Your task to perform on an android device: turn pop-ups on in chrome Image 0: 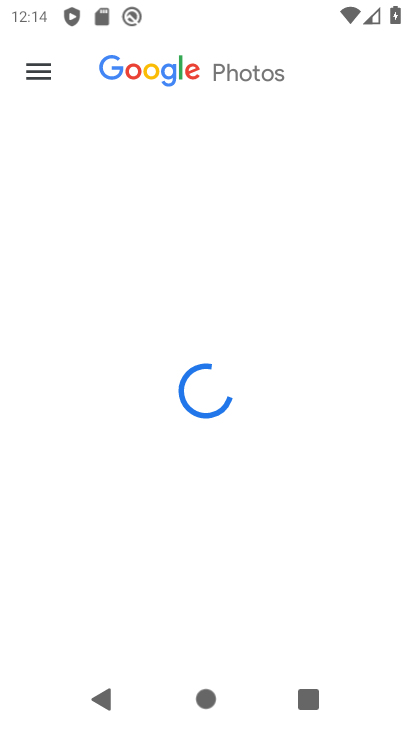
Step 0: press home button
Your task to perform on an android device: turn pop-ups on in chrome Image 1: 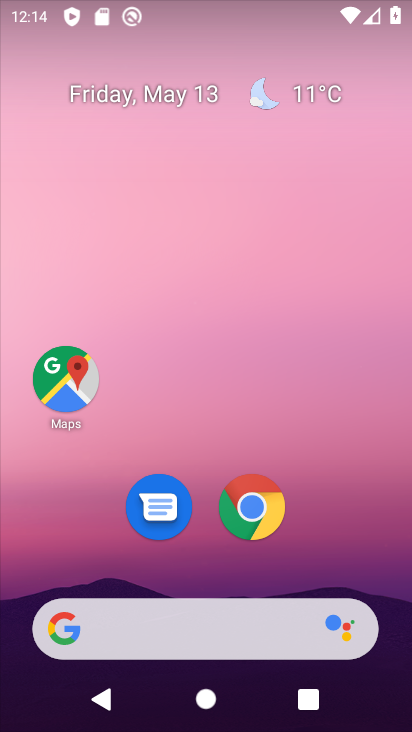
Step 1: drag from (204, 587) to (204, 94)
Your task to perform on an android device: turn pop-ups on in chrome Image 2: 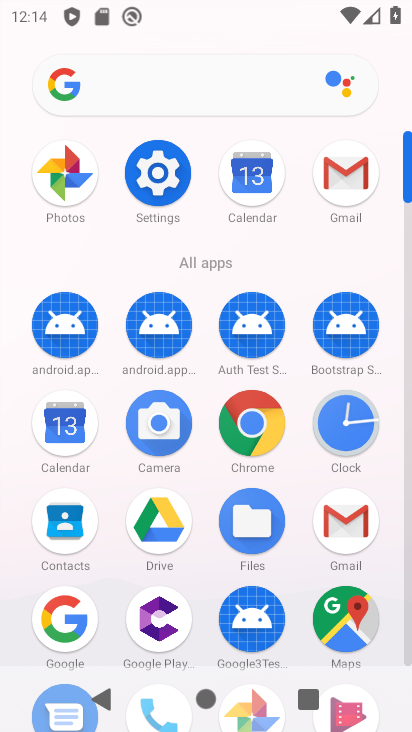
Step 2: click (260, 442)
Your task to perform on an android device: turn pop-ups on in chrome Image 3: 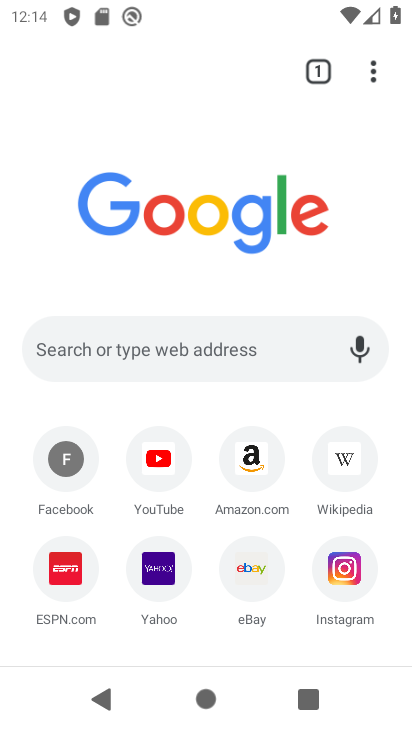
Step 3: click (370, 61)
Your task to perform on an android device: turn pop-ups on in chrome Image 4: 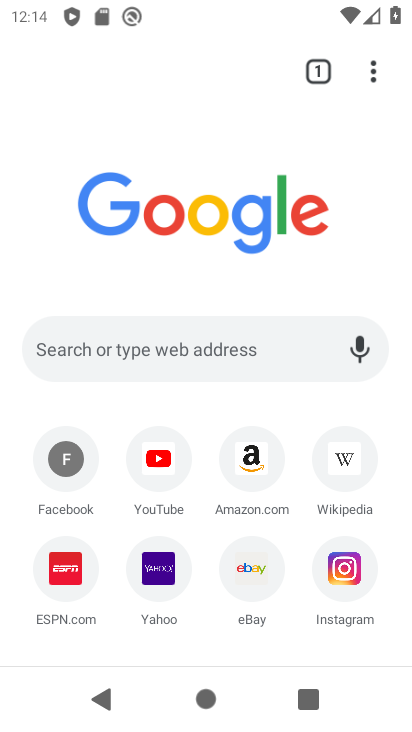
Step 4: click (384, 68)
Your task to perform on an android device: turn pop-ups on in chrome Image 5: 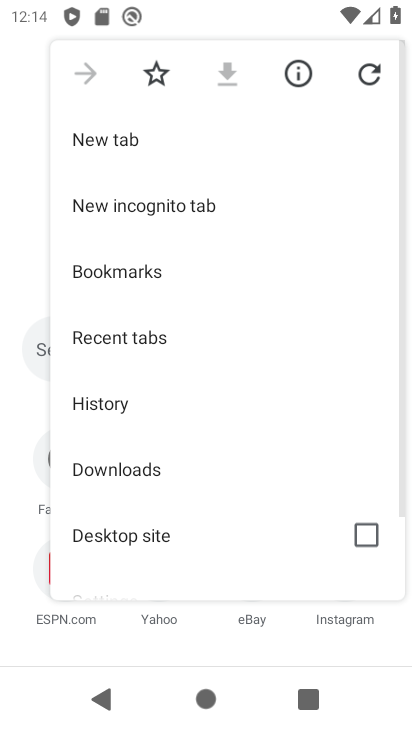
Step 5: drag from (176, 478) to (155, 69)
Your task to perform on an android device: turn pop-ups on in chrome Image 6: 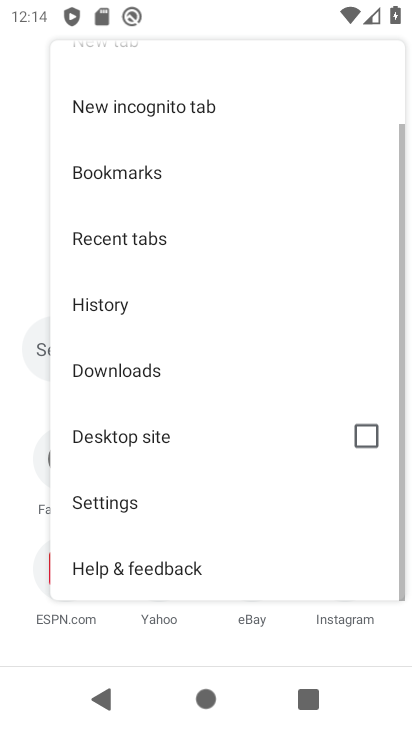
Step 6: click (118, 493)
Your task to perform on an android device: turn pop-ups on in chrome Image 7: 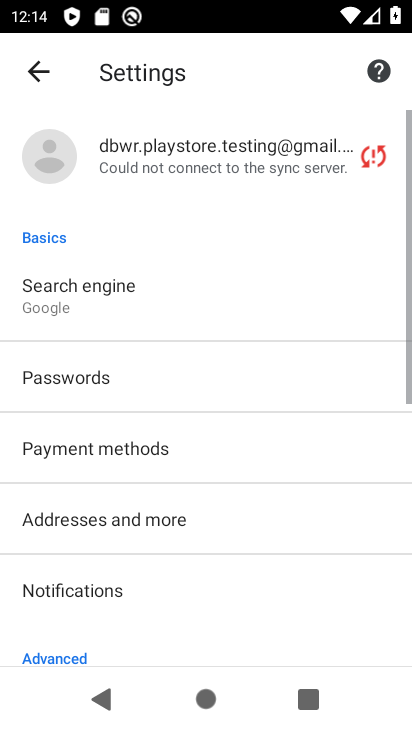
Step 7: drag from (123, 511) to (110, 150)
Your task to perform on an android device: turn pop-ups on in chrome Image 8: 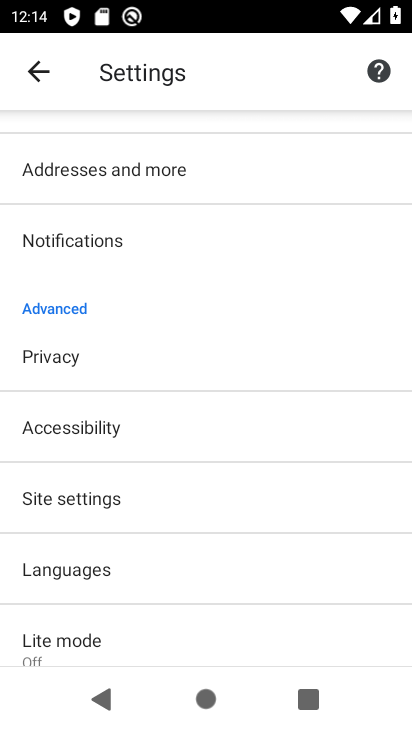
Step 8: click (103, 487)
Your task to perform on an android device: turn pop-ups on in chrome Image 9: 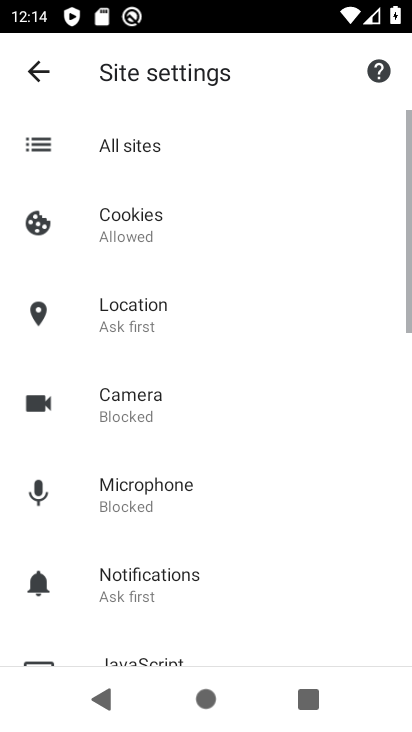
Step 9: drag from (229, 563) to (224, 98)
Your task to perform on an android device: turn pop-ups on in chrome Image 10: 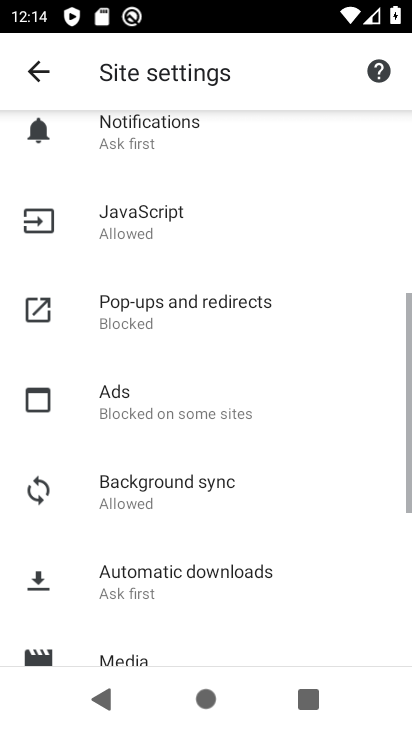
Step 10: click (168, 325)
Your task to perform on an android device: turn pop-ups on in chrome Image 11: 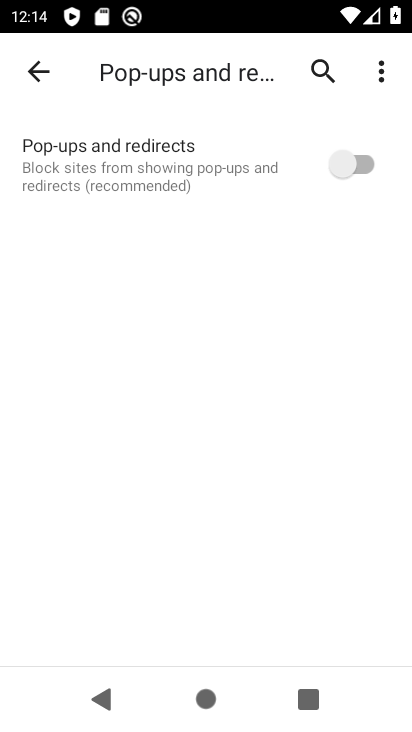
Step 11: click (354, 167)
Your task to perform on an android device: turn pop-ups on in chrome Image 12: 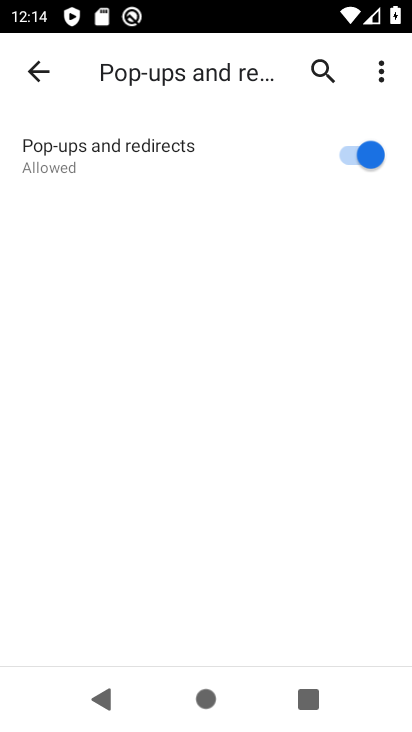
Step 12: task complete